Your task to perform on an android device: How much does a 2 bedroom apartment rent for in Seattle? Image 0: 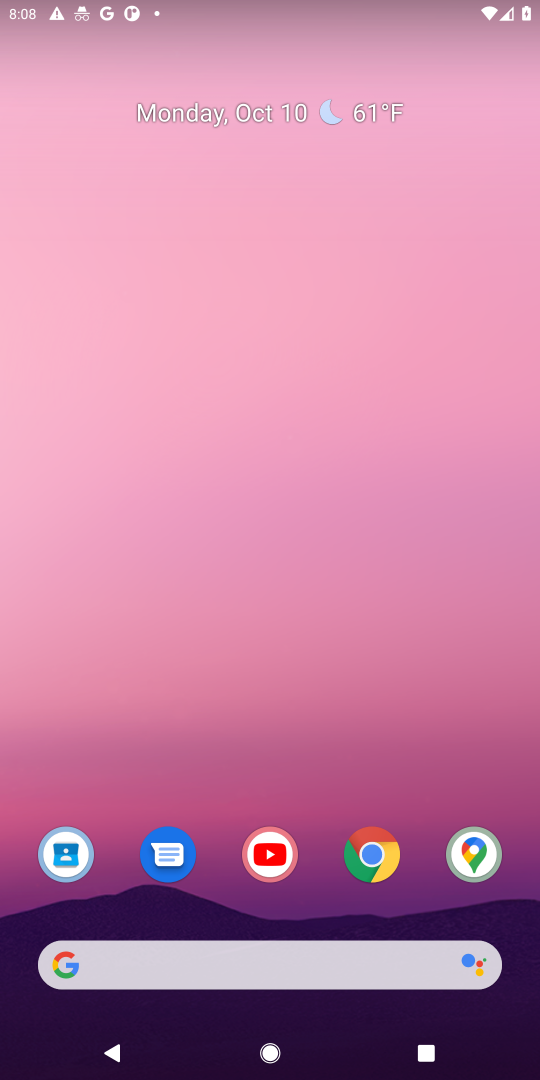
Step 0: click (384, 848)
Your task to perform on an android device: How much does a 2 bedroom apartment rent for in Seattle? Image 1: 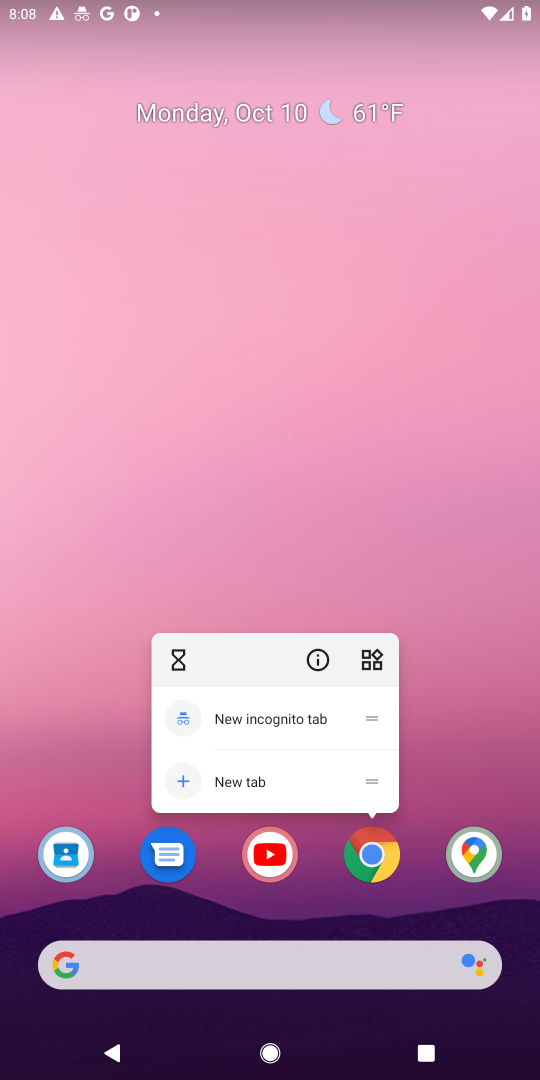
Step 1: click (375, 857)
Your task to perform on an android device: How much does a 2 bedroom apartment rent for in Seattle? Image 2: 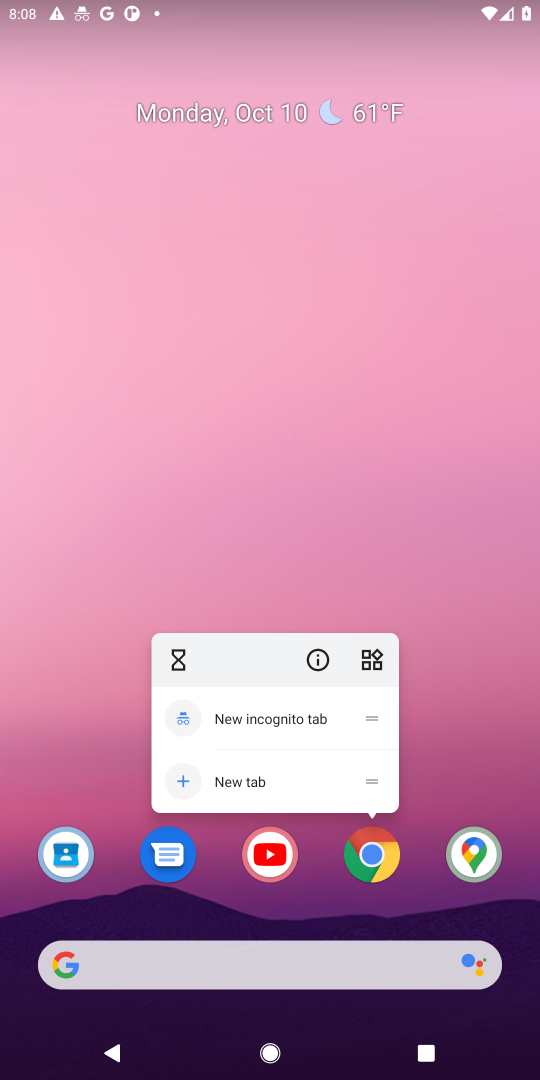
Step 2: click (375, 859)
Your task to perform on an android device: How much does a 2 bedroom apartment rent for in Seattle? Image 3: 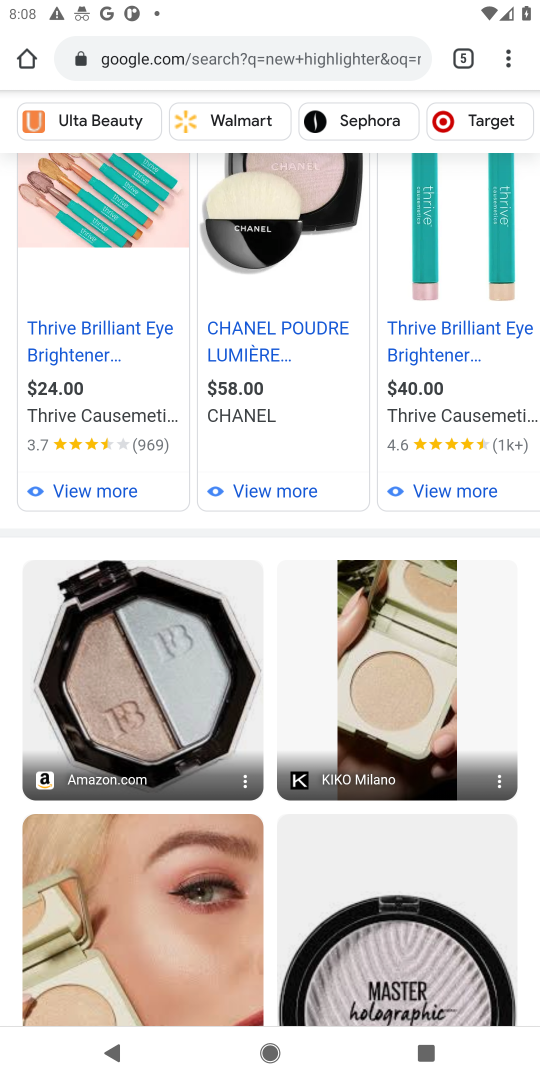
Step 3: click (301, 52)
Your task to perform on an android device: How much does a 2 bedroom apartment rent for in Seattle? Image 4: 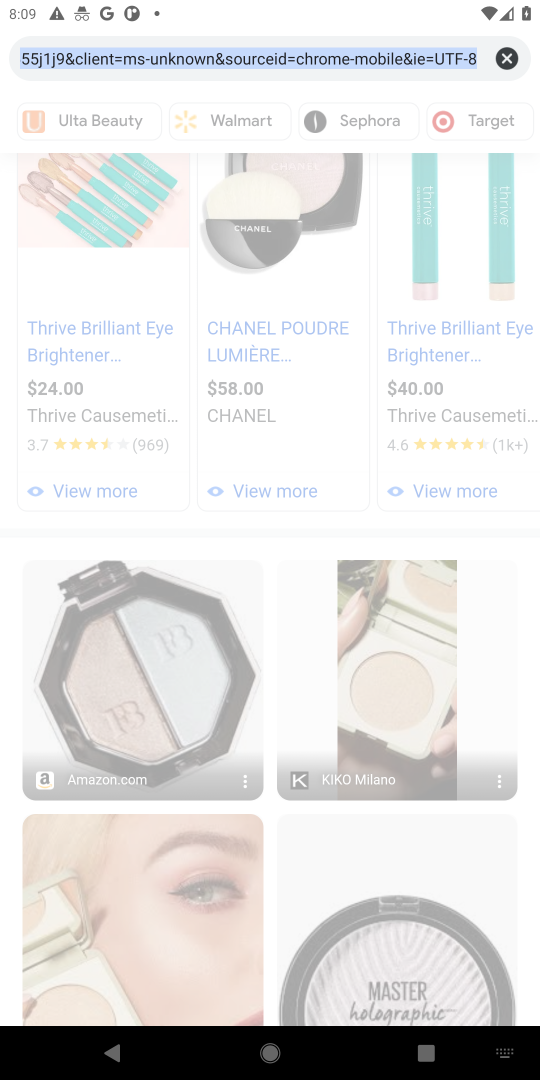
Step 4: click (502, 56)
Your task to perform on an android device: How much does a 2 bedroom apartment rent for in Seattle? Image 5: 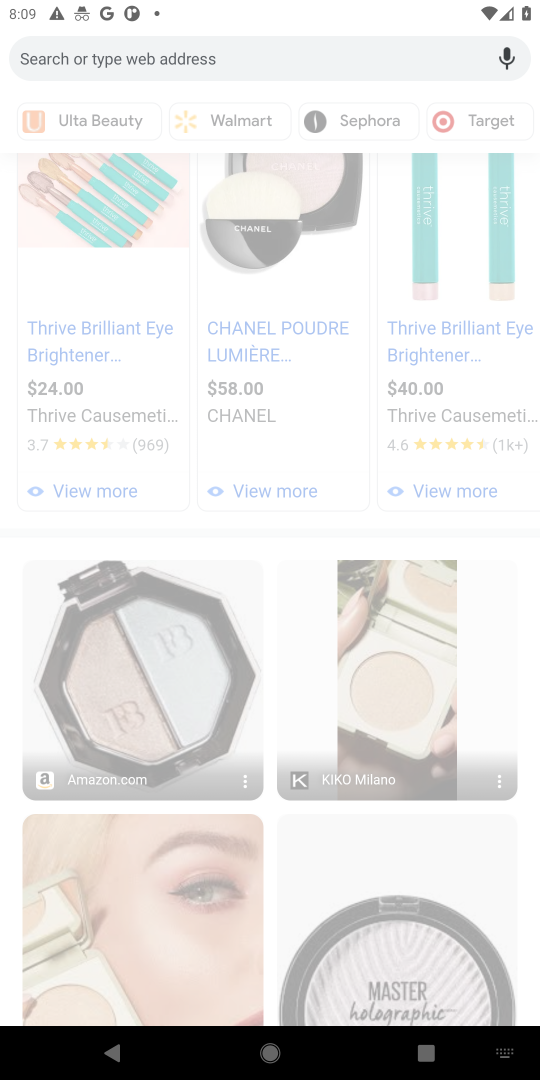
Step 5: type "2 bedroom apartment rent for in Seattle"
Your task to perform on an android device: How much does a 2 bedroom apartment rent for in Seattle? Image 6: 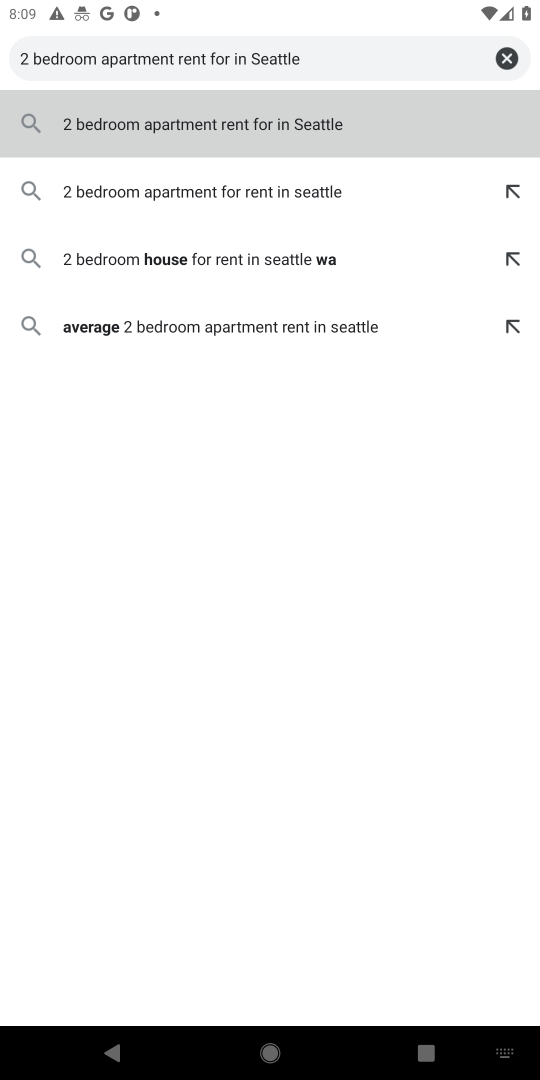
Step 6: click (248, 125)
Your task to perform on an android device: How much does a 2 bedroom apartment rent for in Seattle? Image 7: 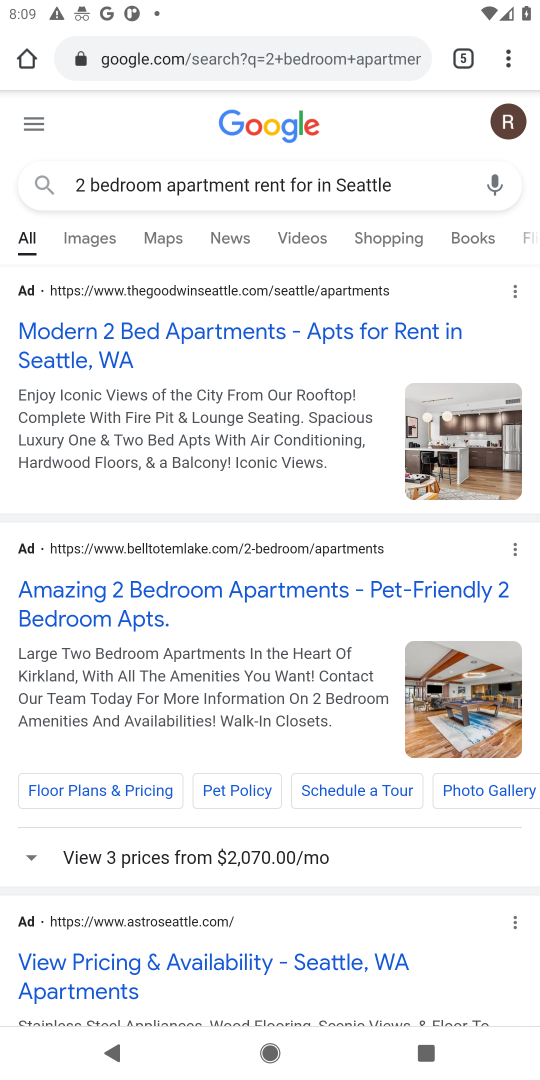
Step 7: click (237, 334)
Your task to perform on an android device: How much does a 2 bedroom apartment rent for in Seattle? Image 8: 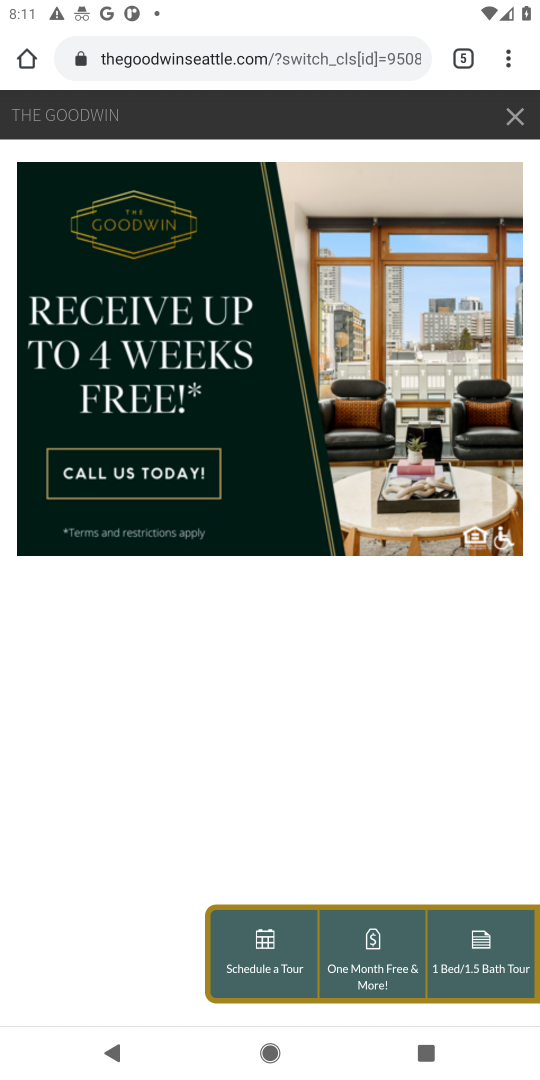
Step 8: task complete